Your task to perform on an android device: Go to battery settings Image 0: 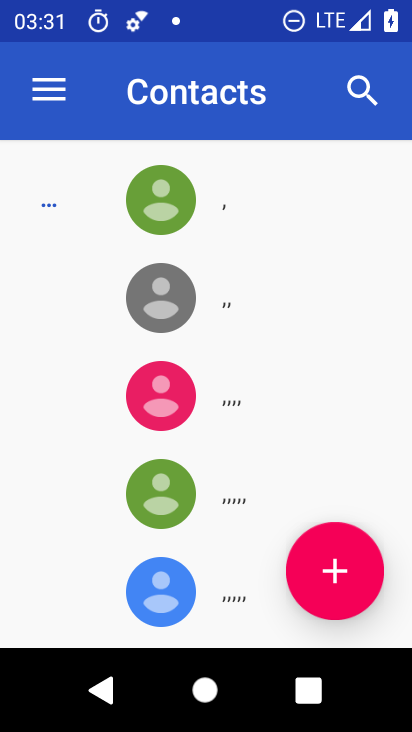
Step 0: press home button
Your task to perform on an android device: Go to battery settings Image 1: 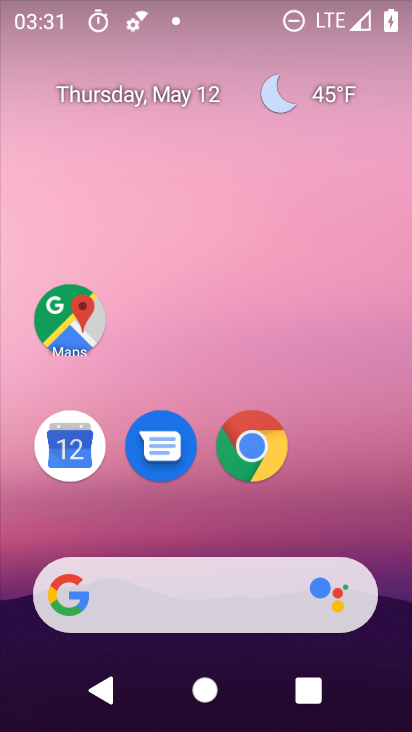
Step 1: drag from (267, 511) to (267, 183)
Your task to perform on an android device: Go to battery settings Image 2: 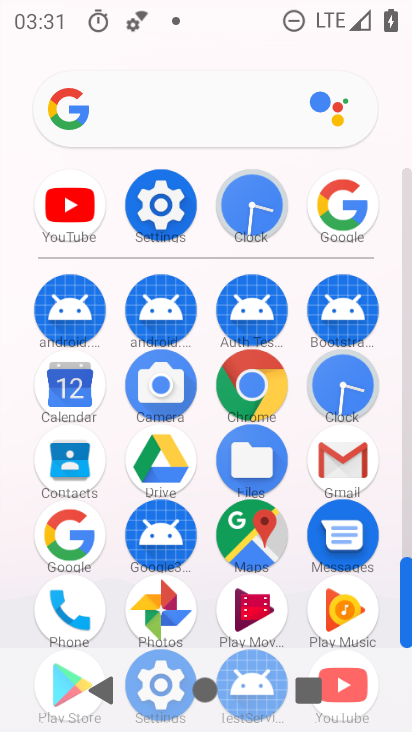
Step 2: click (173, 216)
Your task to perform on an android device: Go to battery settings Image 3: 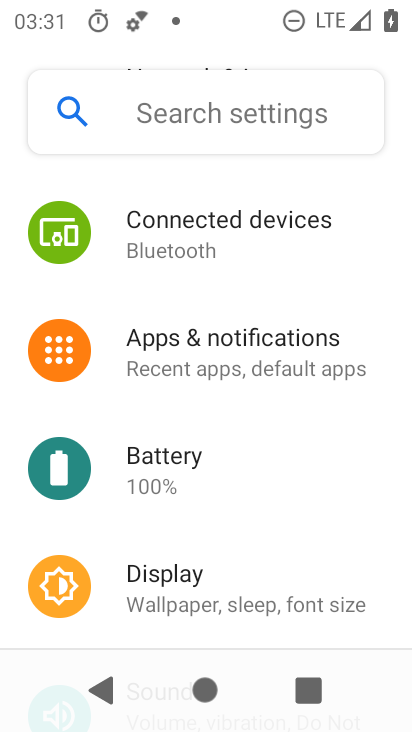
Step 3: click (161, 460)
Your task to perform on an android device: Go to battery settings Image 4: 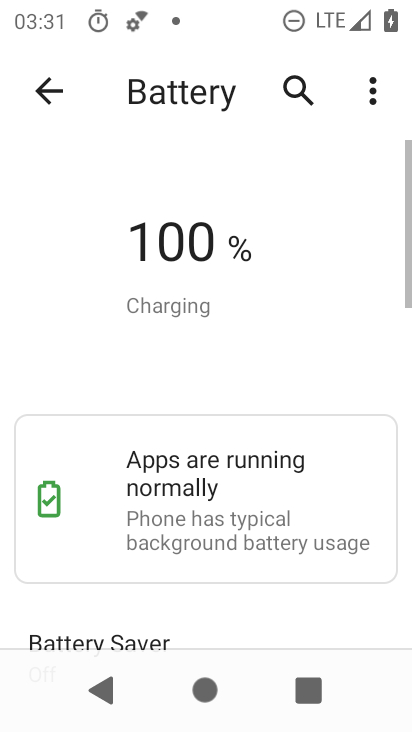
Step 4: task complete